Your task to perform on an android device: turn pop-ups on in chrome Image 0: 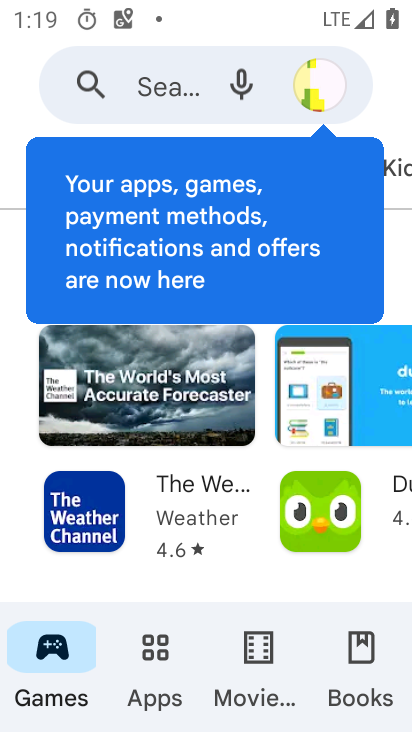
Step 0: press home button
Your task to perform on an android device: turn pop-ups on in chrome Image 1: 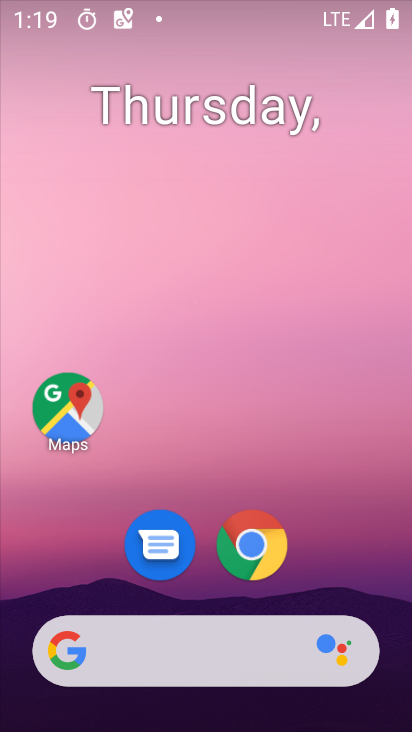
Step 1: drag from (219, 570) to (288, 54)
Your task to perform on an android device: turn pop-ups on in chrome Image 2: 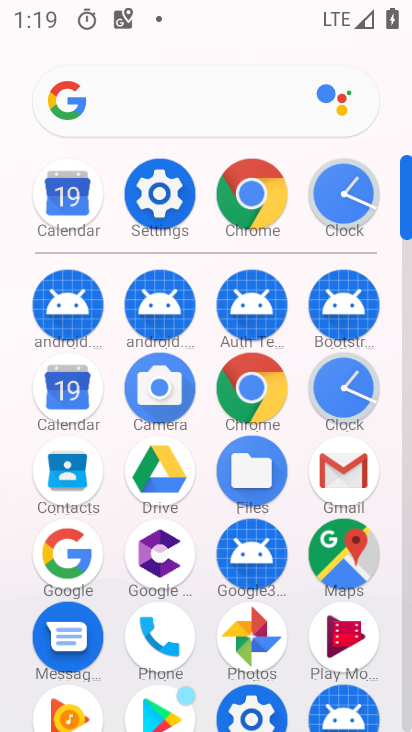
Step 2: click (250, 395)
Your task to perform on an android device: turn pop-ups on in chrome Image 3: 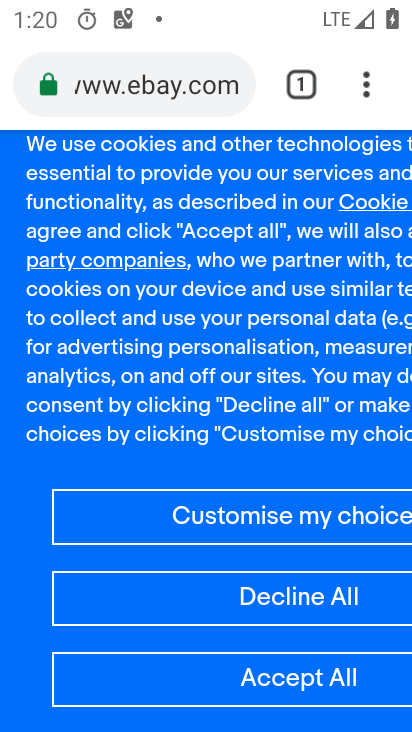
Step 3: click (371, 85)
Your task to perform on an android device: turn pop-ups on in chrome Image 4: 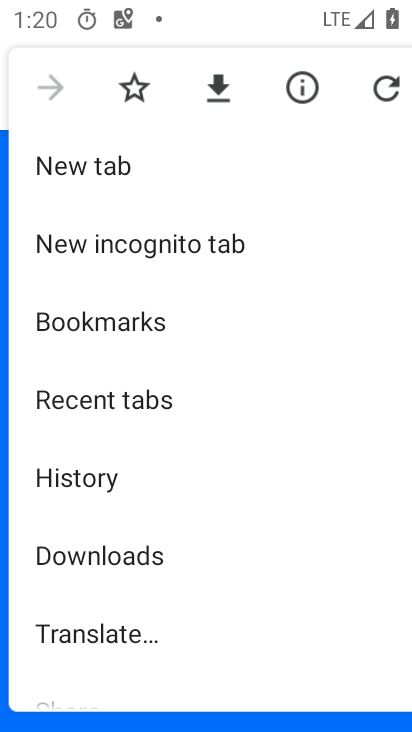
Step 4: drag from (180, 649) to (238, 56)
Your task to perform on an android device: turn pop-ups on in chrome Image 5: 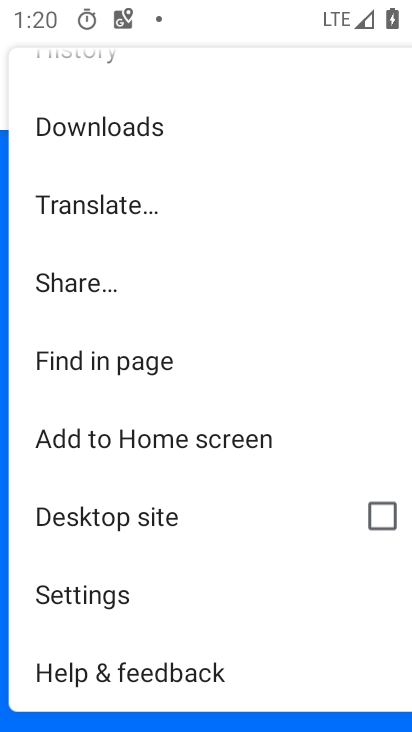
Step 5: click (136, 594)
Your task to perform on an android device: turn pop-ups on in chrome Image 6: 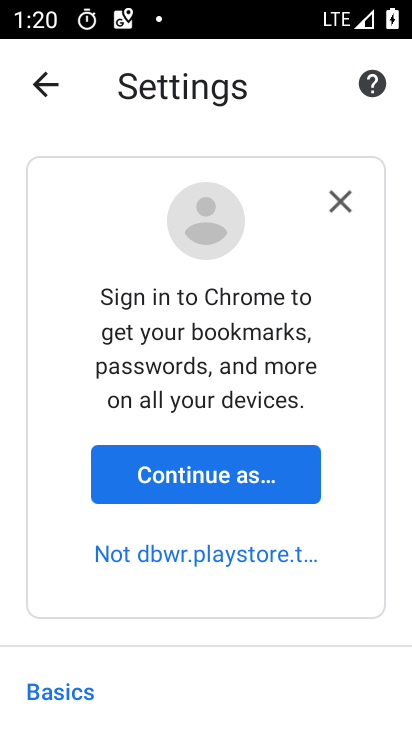
Step 6: drag from (143, 725) to (261, 24)
Your task to perform on an android device: turn pop-ups on in chrome Image 7: 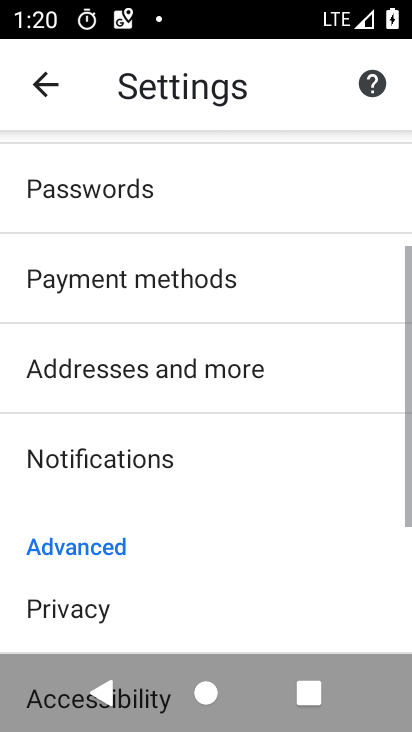
Step 7: drag from (157, 656) to (205, 237)
Your task to perform on an android device: turn pop-ups on in chrome Image 8: 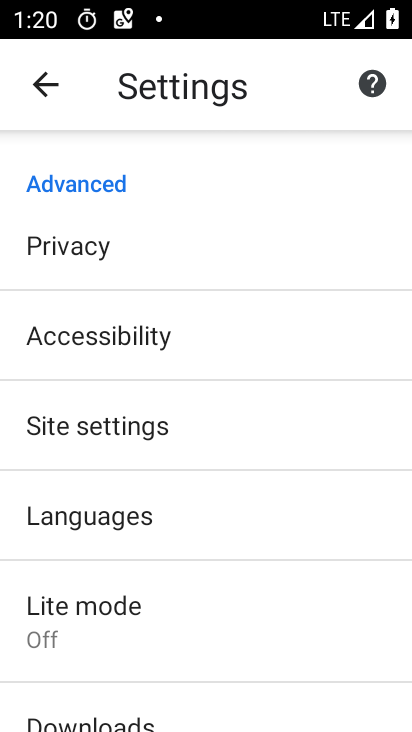
Step 8: click (194, 450)
Your task to perform on an android device: turn pop-ups on in chrome Image 9: 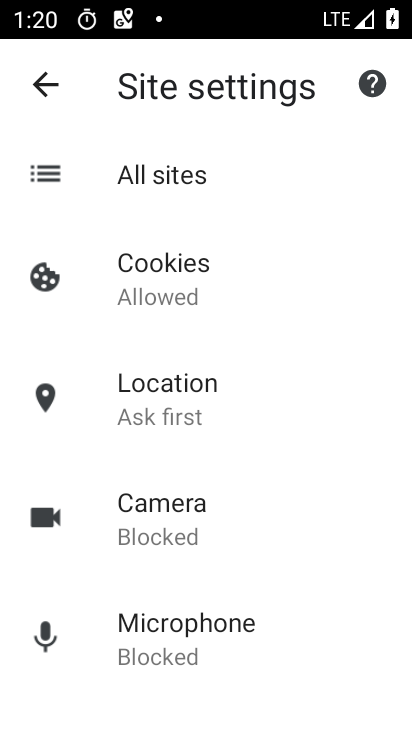
Step 9: drag from (302, 677) to (337, 212)
Your task to perform on an android device: turn pop-ups on in chrome Image 10: 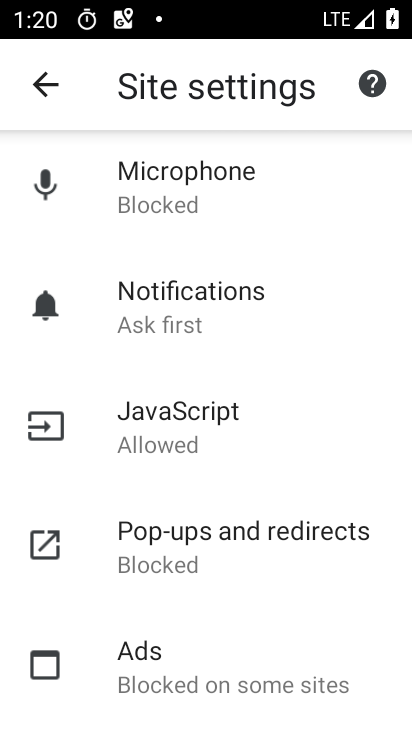
Step 10: click (260, 542)
Your task to perform on an android device: turn pop-ups on in chrome Image 11: 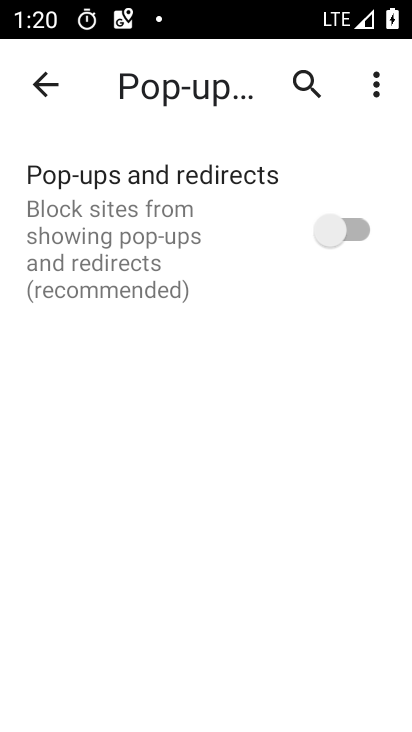
Step 11: click (356, 229)
Your task to perform on an android device: turn pop-ups on in chrome Image 12: 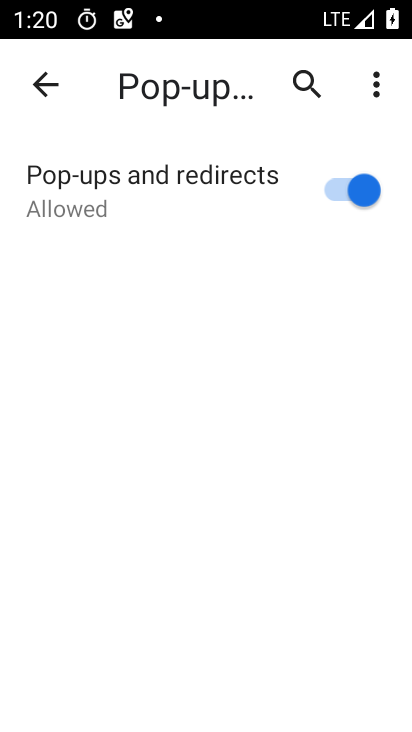
Step 12: task complete